Your task to perform on an android device: Search for sushi restaurants on Maps Image 0: 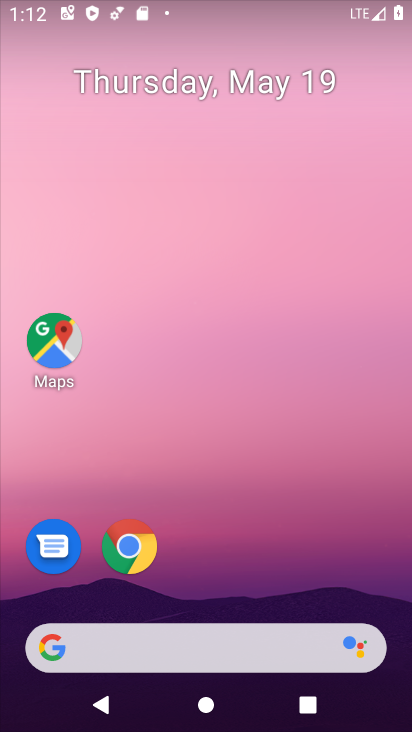
Step 0: click (49, 311)
Your task to perform on an android device: Search for sushi restaurants on Maps Image 1: 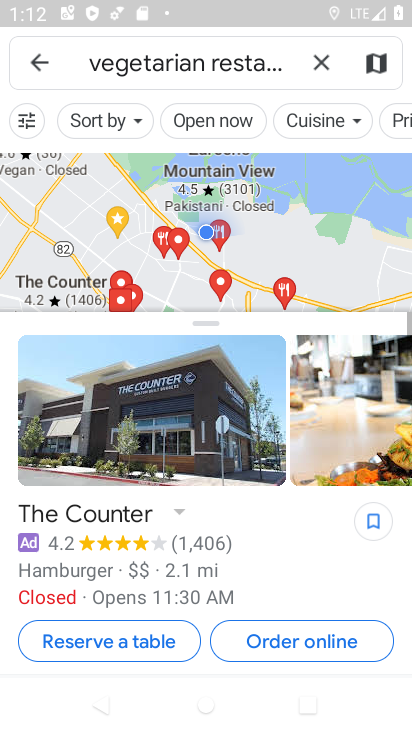
Step 1: click (329, 63)
Your task to perform on an android device: Search for sushi restaurants on Maps Image 2: 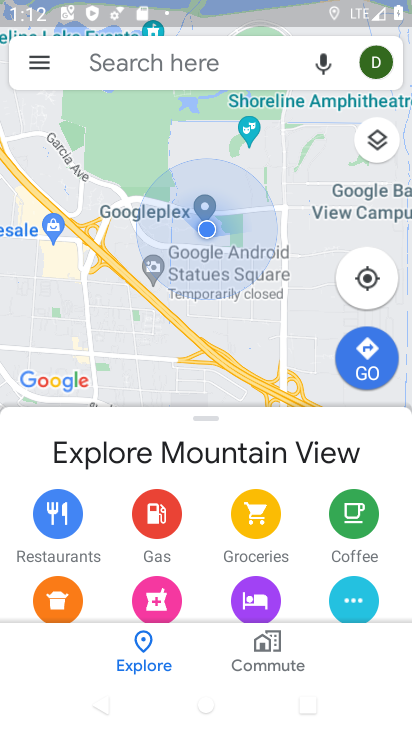
Step 2: click (178, 65)
Your task to perform on an android device: Search for sushi restaurants on Maps Image 3: 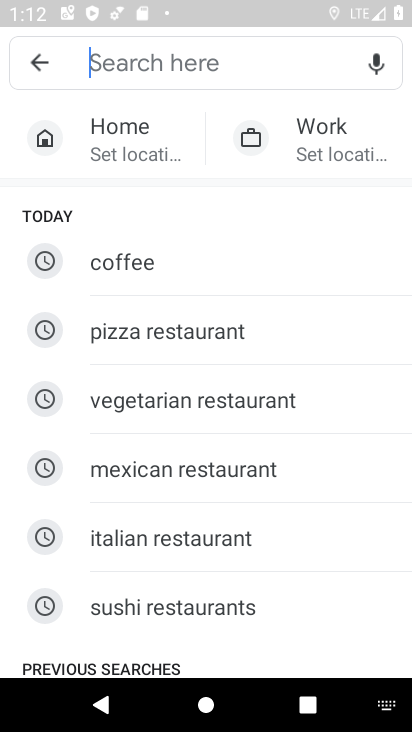
Step 3: click (114, 604)
Your task to perform on an android device: Search for sushi restaurants on Maps Image 4: 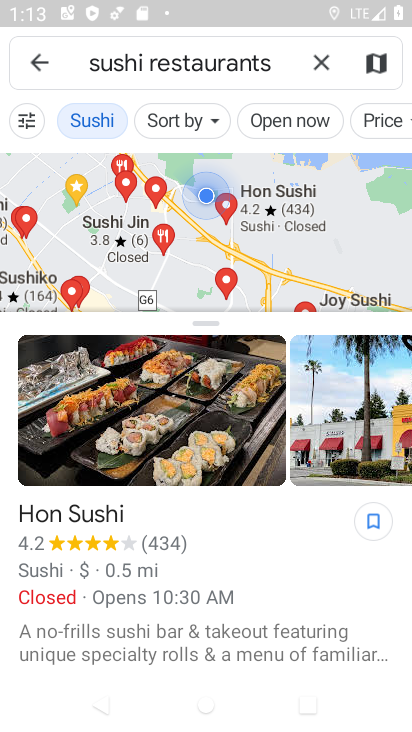
Step 4: task complete